Your task to perform on an android device: open sync settings in chrome Image 0: 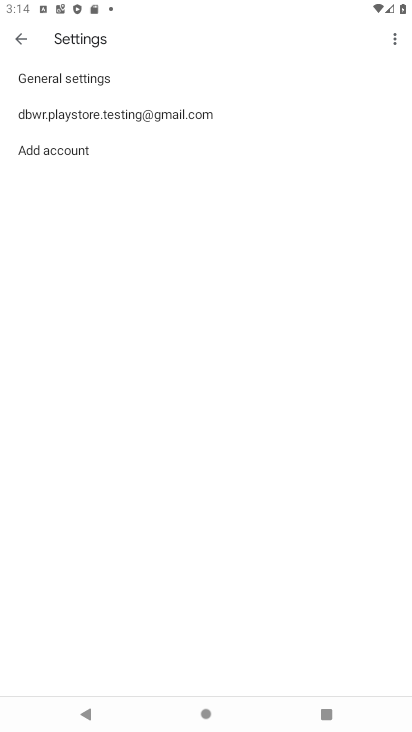
Step 0: press home button
Your task to perform on an android device: open sync settings in chrome Image 1: 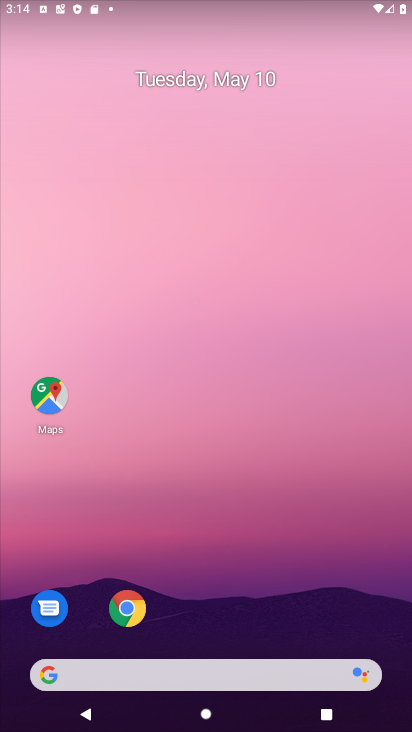
Step 1: click (126, 607)
Your task to perform on an android device: open sync settings in chrome Image 2: 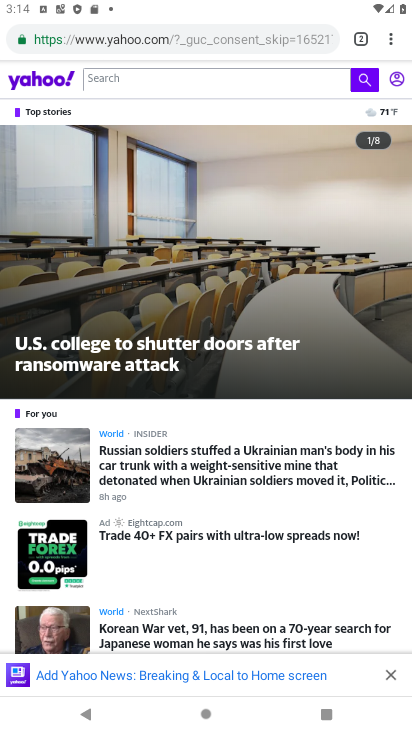
Step 2: click (391, 41)
Your task to perform on an android device: open sync settings in chrome Image 3: 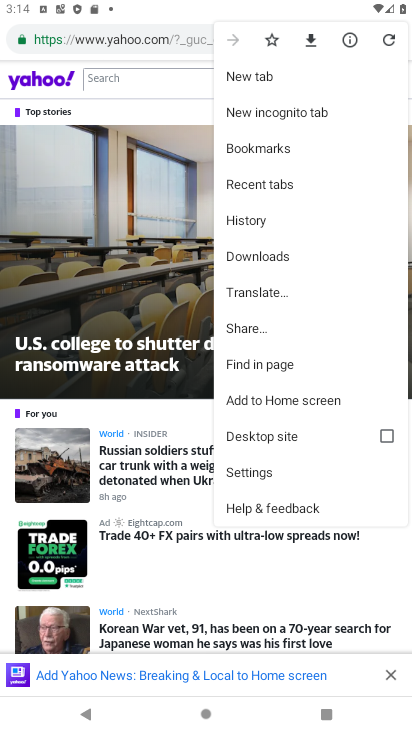
Step 3: click (262, 469)
Your task to perform on an android device: open sync settings in chrome Image 4: 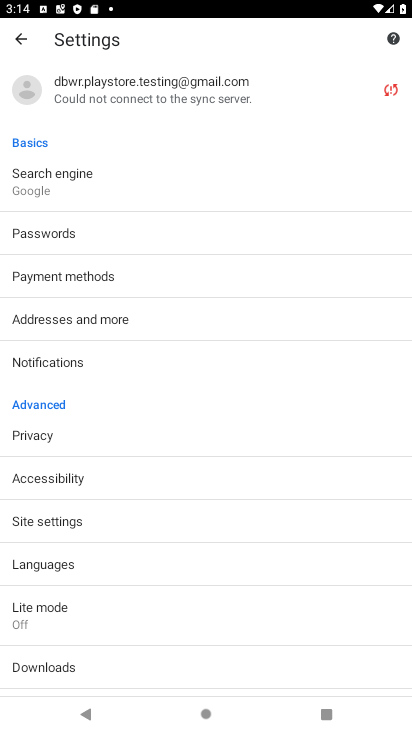
Step 4: click (92, 82)
Your task to perform on an android device: open sync settings in chrome Image 5: 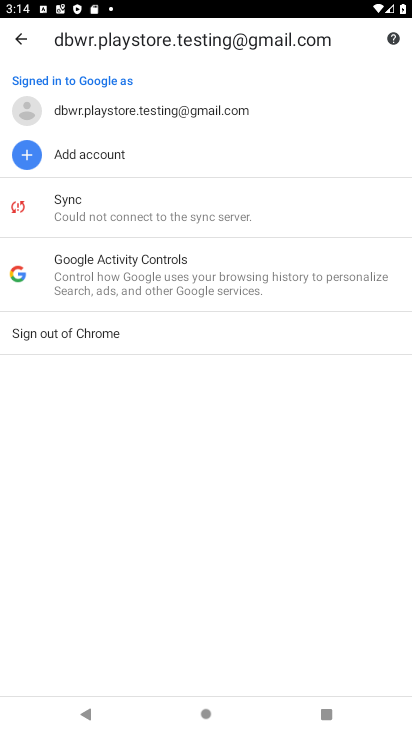
Step 5: click (69, 211)
Your task to perform on an android device: open sync settings in chrome Image 6: 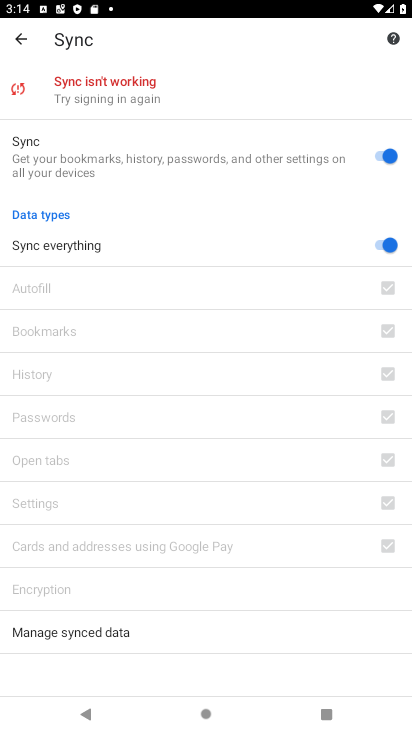
Step 6: task complete